Your task to perform on an android device: turn on notifications settings in the gmail app Image 0: 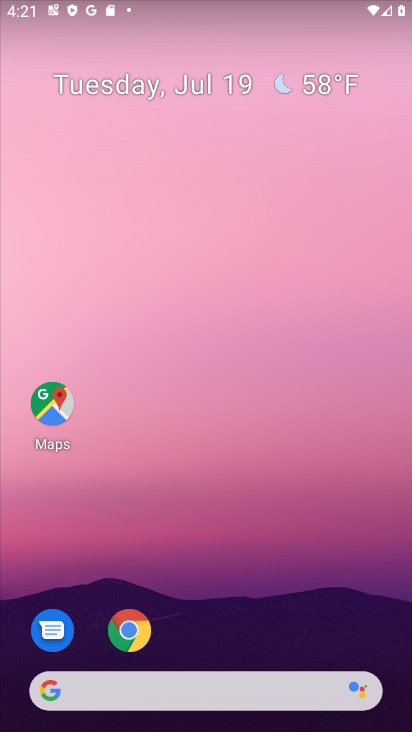
Step 0: press home button
Your task to perform on an android device: turn on notifications settings in the gmail app Image 1: 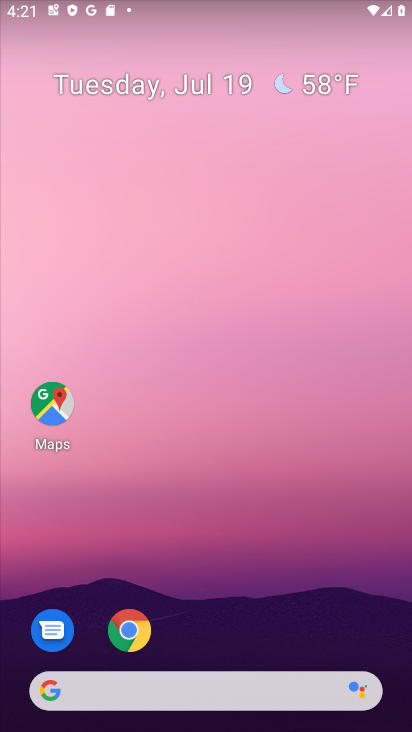
Step 1: drag from (246, 472) to (249, 209)
Your task to perform on an android device: turn on notifications settings in the gmail app Image 2: 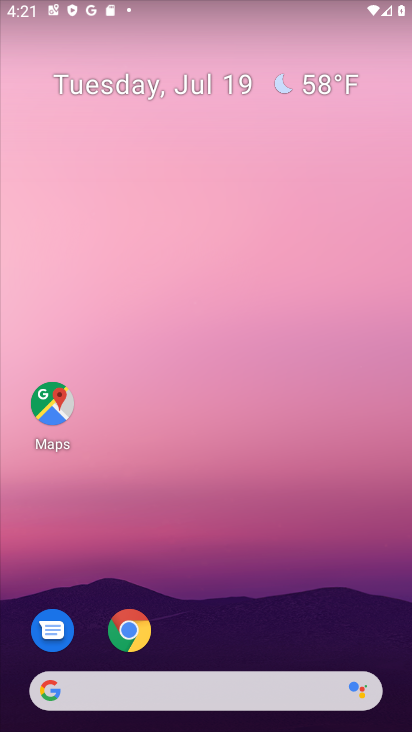
Step 2: drag from (249, 594) to (336, 207)
Your task to perform on an android device: turn on notifications settings in the gmail app Image 3: 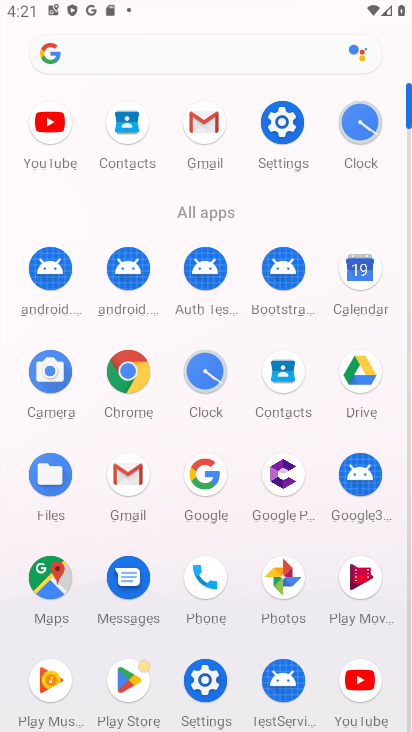
Step 3: click (202, 216)
Your task to perform on an android device: turn on notifications settings in the gmail app Image 4: 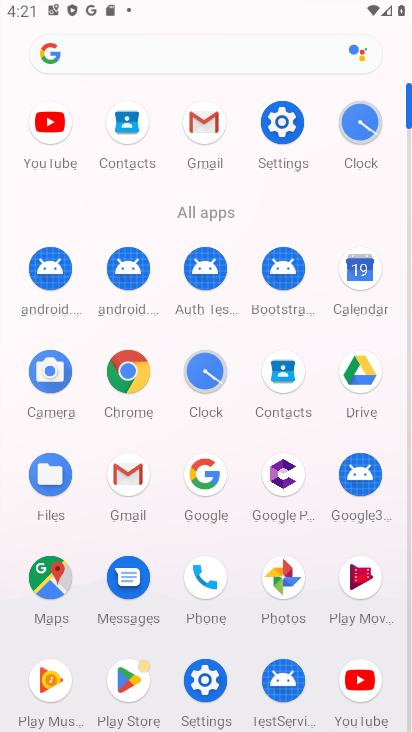
Step 4: click (203, 118)
Your task to perform on an android device: turn on notifications settings in the gmail app Image 5: 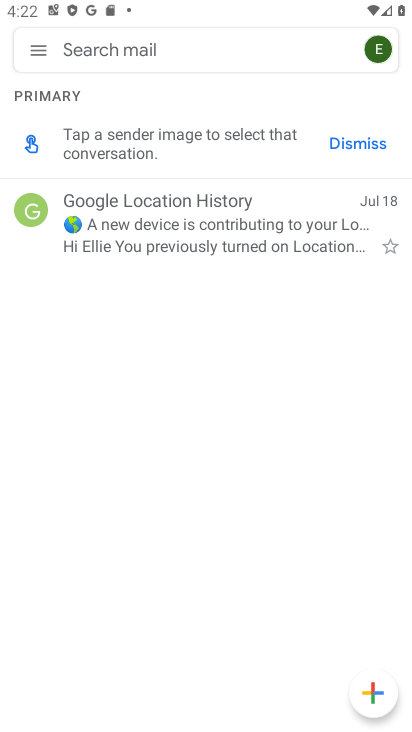
Step 5: click (39, 53)
Your task to perform on an android device: turn on notifications settings in the gmail app Image 6: 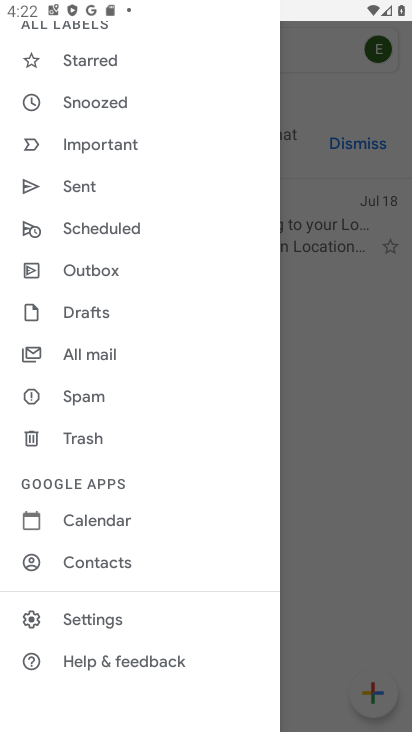
Step 6: click (79, 612)
Your task to perform on an android device: turn on notifications settings in the gmail app Image 7: 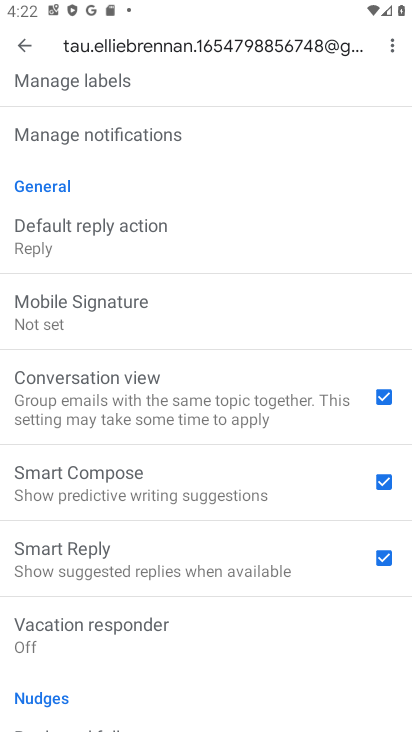
Step 7: drag from (82, 184) to (54, 545)
Your task to perform on an android device: turn on notifications settings in the gmail app Image 8: 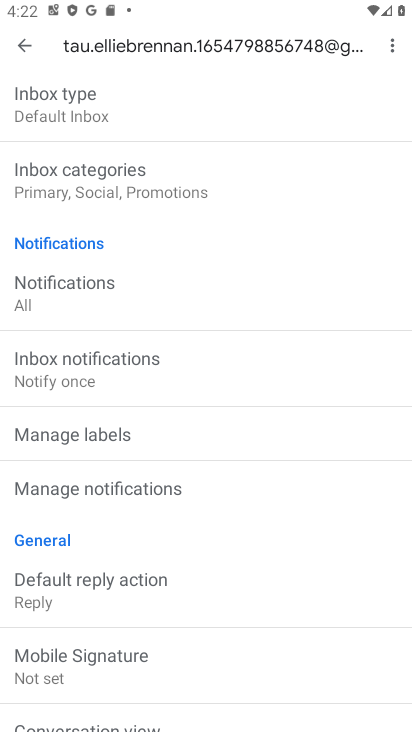
Step 8: click (88, 492)
Your task to perform on an android device: turn on notifications settings in the gmail app Image 9: 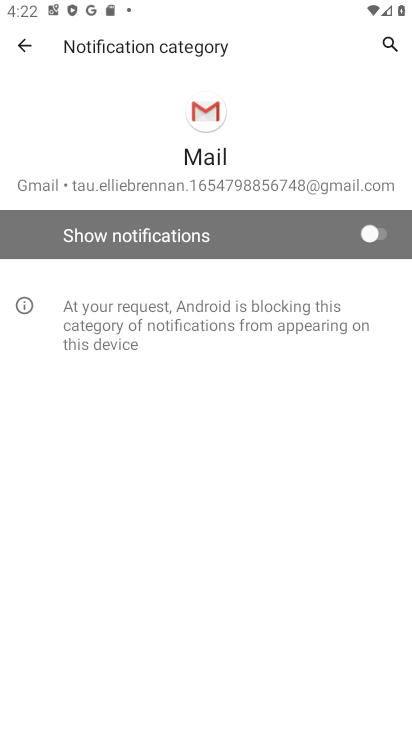
Step 9: click (380, 230)
Your task to perform on an android device: turn on notifications settings in the gmail app Image 10: 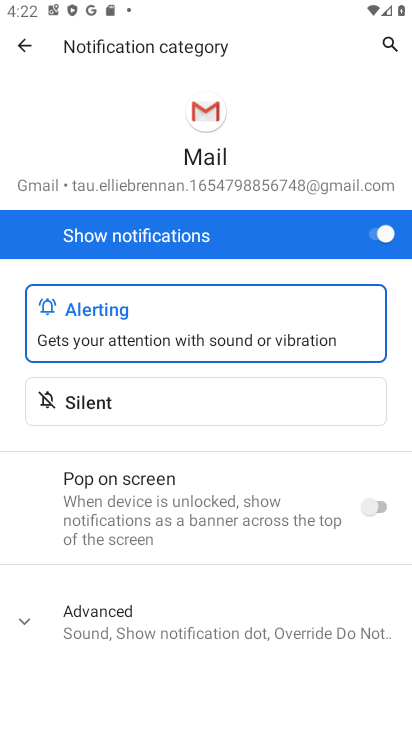
Step 10: task complete